Your task to perform on an android device: Search for seafood restaurants on Google Maps Image 0: 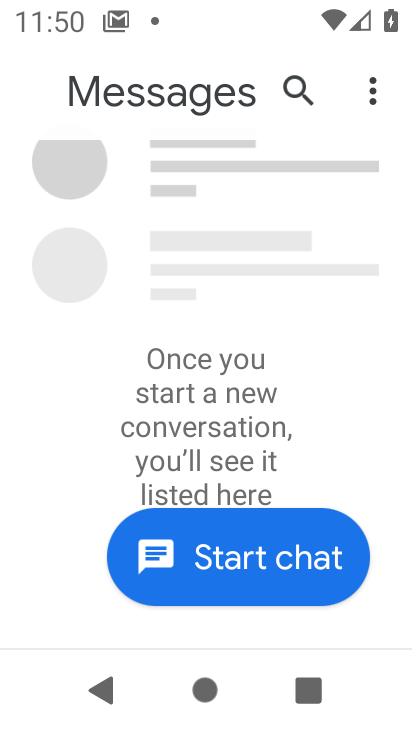
Step 0: press home button
Your task to perform on an android device: Search for seafood restaurants on Google Maps Image 1: 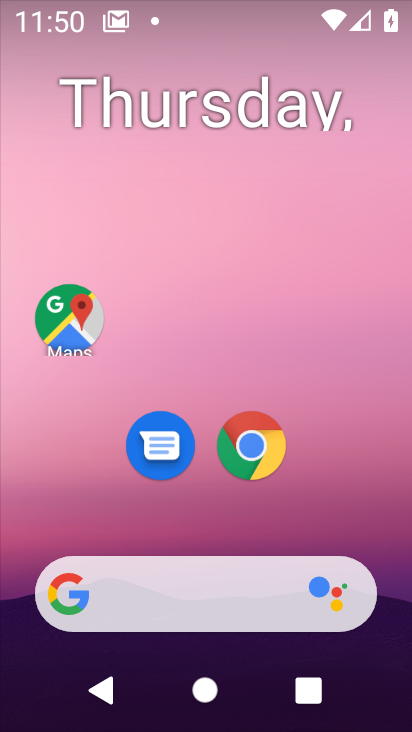
Step 1: click (70, 323)
Your task to perform on an android device: Search for seafood restaurants on Google Maps Image 2: 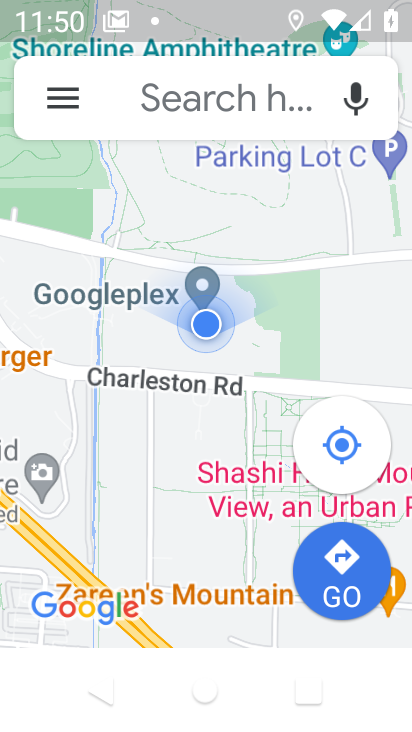
Step 2: click (145, 104)
Your task to perform on an android device: Search for seafood restaurants on Google Maps Image 3: 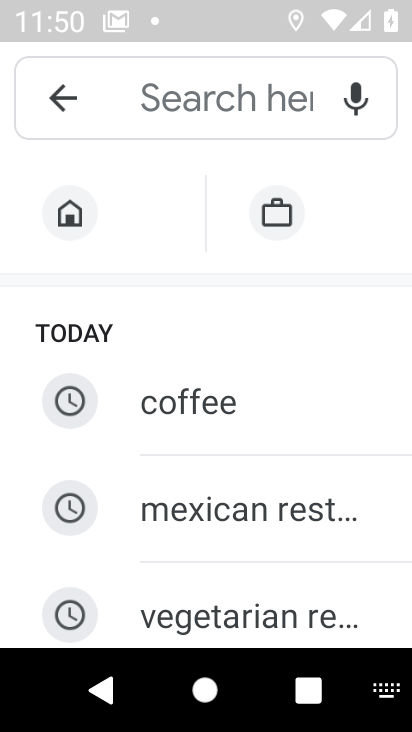
Step 3: drag from (206, 629) to (188, 228)
Your task to perform on an android device: Search for seafood restaurants on Google Maps Image 4: 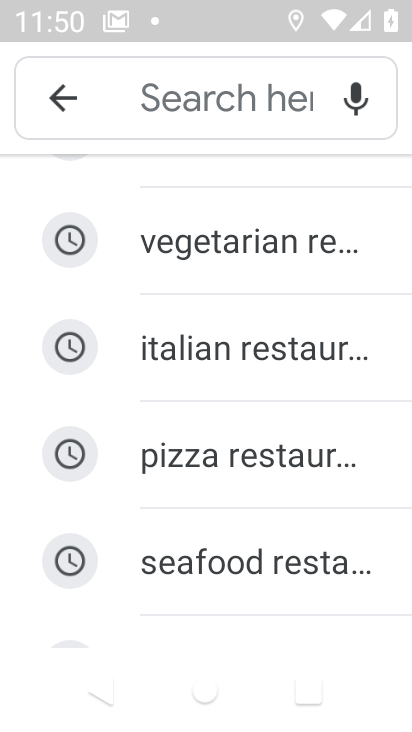
Step 4: click (238, 564)
Your task to perform on an android device: Search for seafood restaurants on Google Maps Image 5: 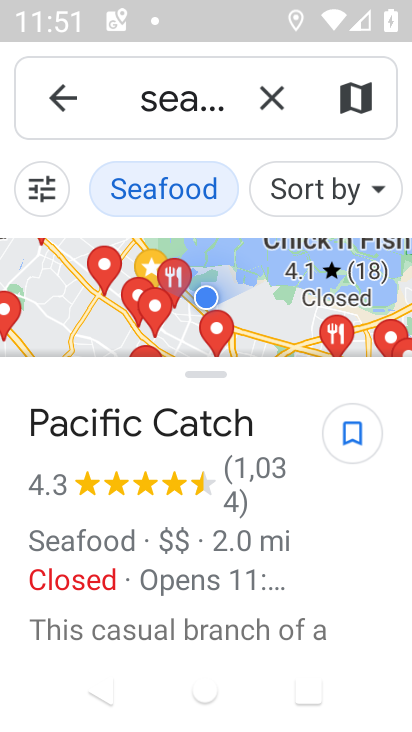
Step 5: task complete